Your task to perform on an android device: Play the last video I watched on Youtube Image 0: 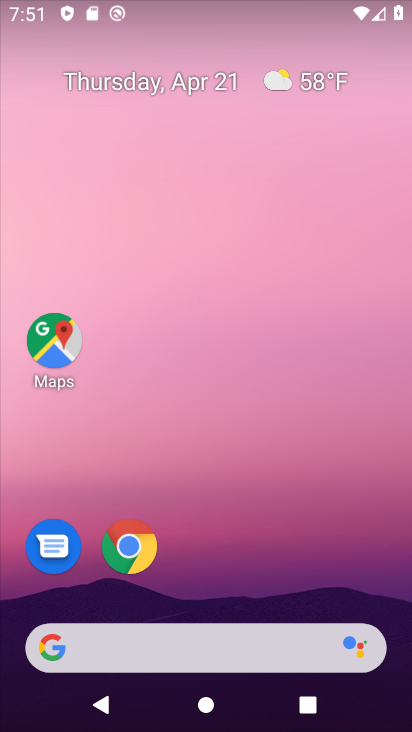
Step 0: drag from (252, 445) to (199, 40)
Your task to perform on an android device: Play the last video I watched on Youtube Image 1: 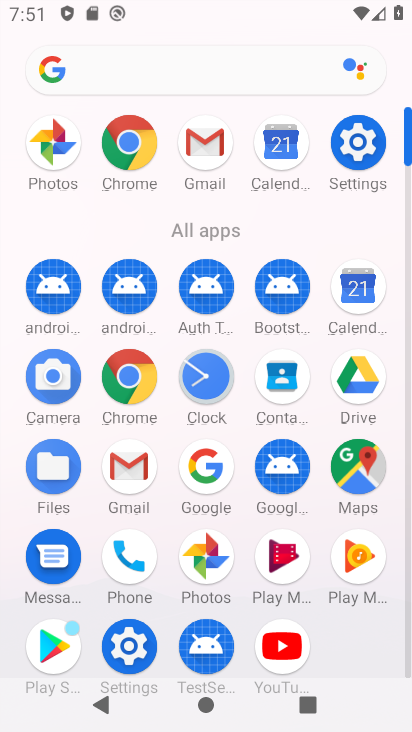
Step 1: click (279, 646)
Your task to perform on an android device: Play the last video I watched on Youtube Image 2: 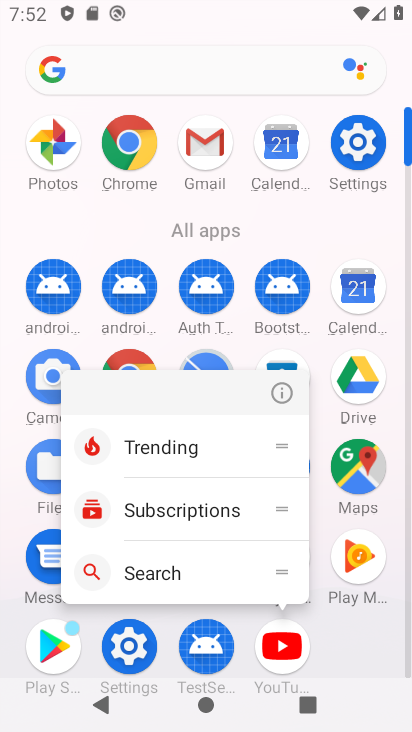
Step 2: click (279, 646)
Your task to perform on an android device: Play the last video I watched on Youtube Image 3: 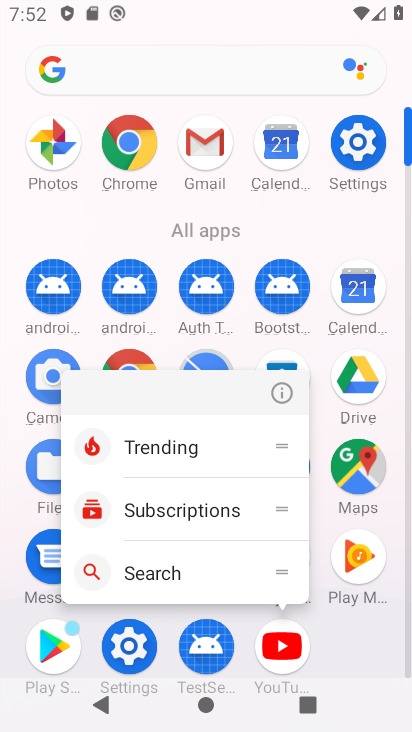
Step 3: click (279, 645)
Your task to perform on an android device: Play the last video I watched on Youtube Image 4: 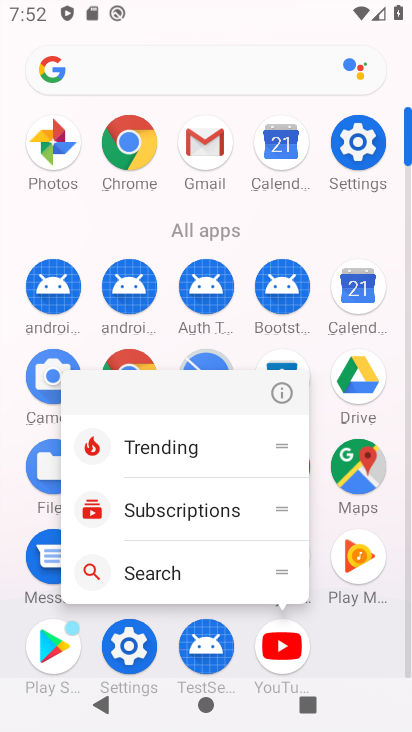
Step 4: click (279, 644)
Your task to perform on an android device: Play the last video I watched on Youtube Image 5: 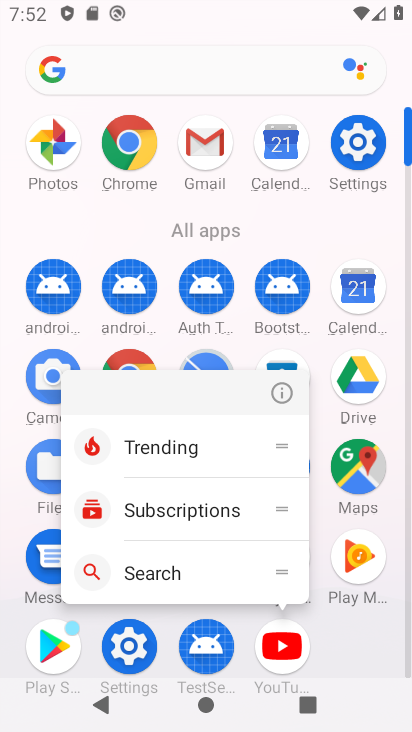
Step 5: click (279, 644)
Your task to perform on an android device: Play the last video I watched on Youtube Image 6: 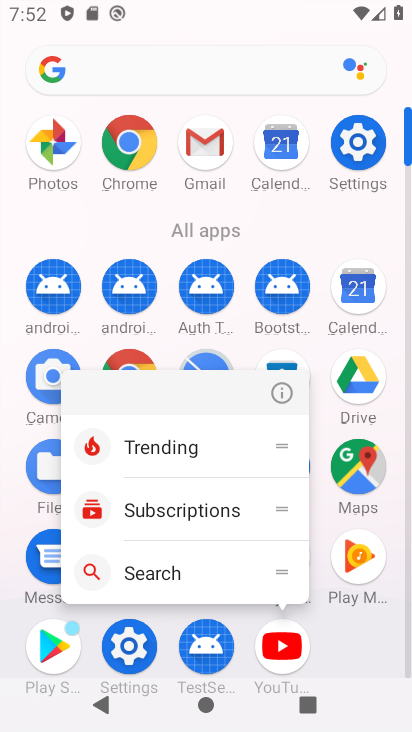
Step 6: click (279, 644)
Your task to perform on an android device: Play the last video I watched on Youtube Image 7: 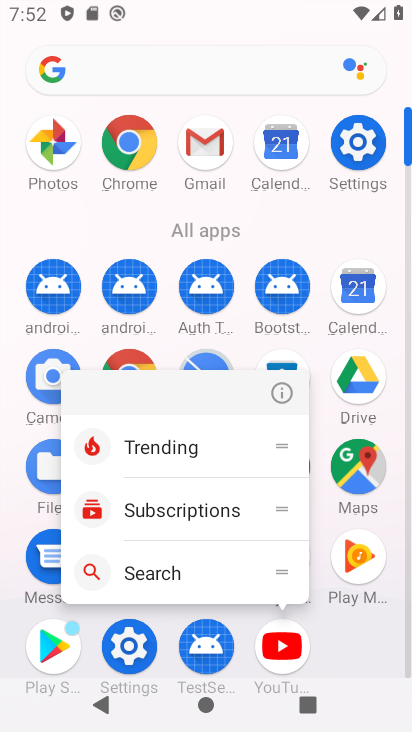
Step 7: click (279, 644)
Your task to perform on an android device: Play the last video I watched on Youtube Image 8: 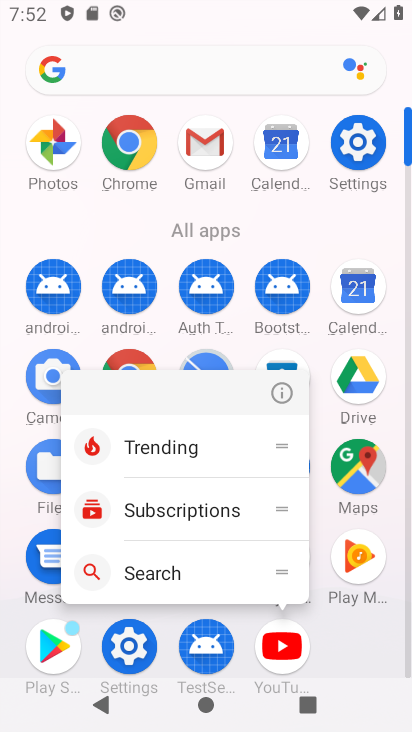
Step 8: click (279, 644)
Your task to perform on an android device: Play the last video I watched on Youtube Image 9: 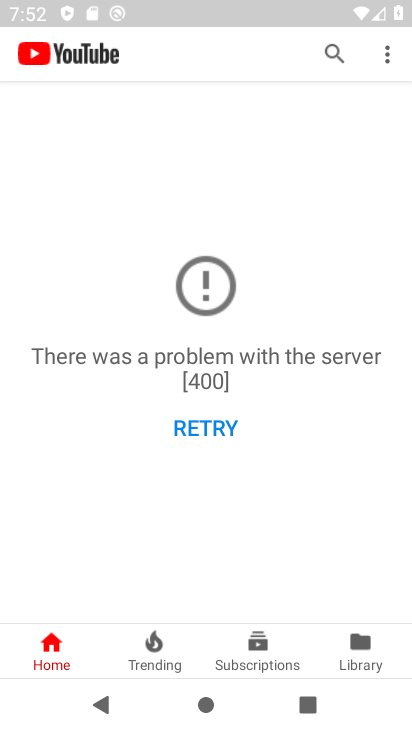
Step 9: click (279, 644)
Your task to perform on an android device: Play the last video I watched on Youtube Image 10: 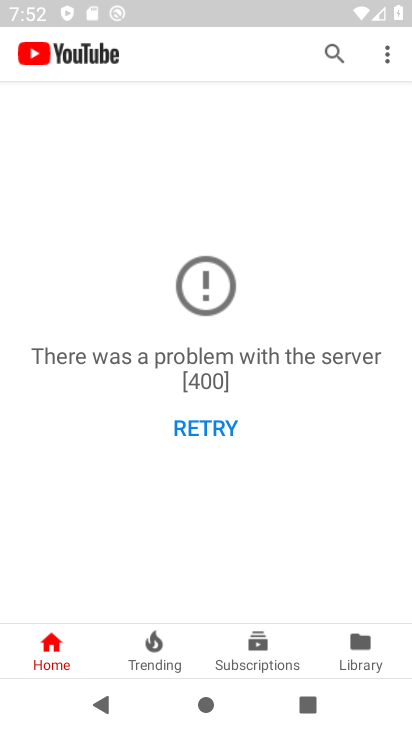
Step 10: click (363, 648)
Your task to perform on an android device: Play the last video I watched on Youtube Image 11: 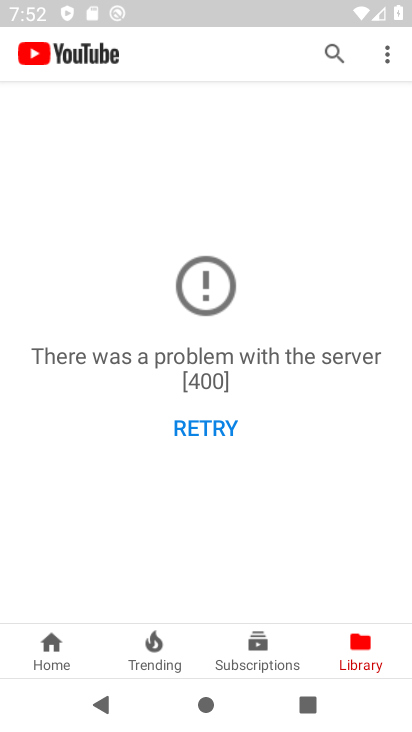
Step 11: click (363, 648)
Your task to perform on an android device: Play the last video I watched on Youtube Image 12: 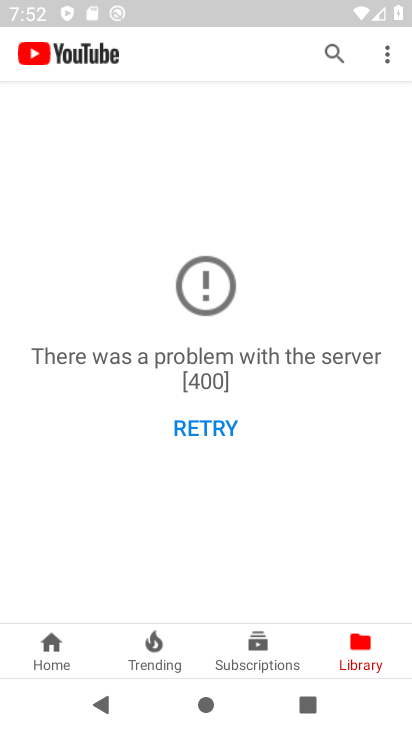
Step 12: task complete